Your task to perform on an android device: Go to Wikipedia Image 0: 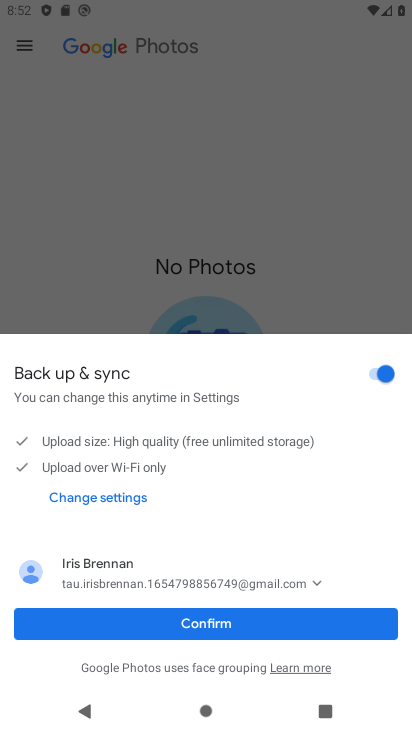
Step 0: press home button
Your task to perform on an android device: Go to Wikipedia Image 1: 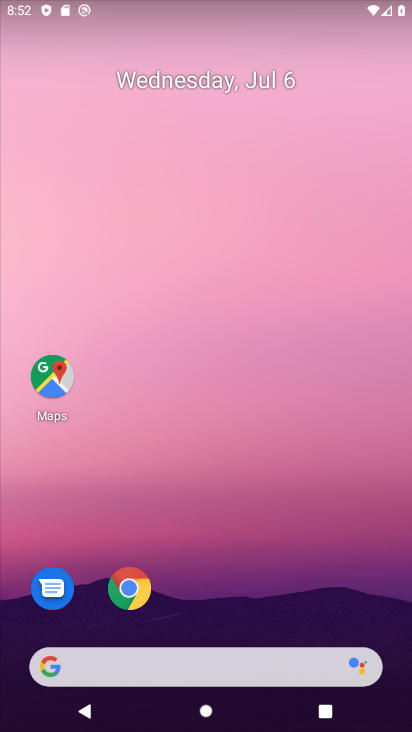
Step 1: click (124, 594)
Your task to perform on an android device: Go to Wikipedia Image 2: 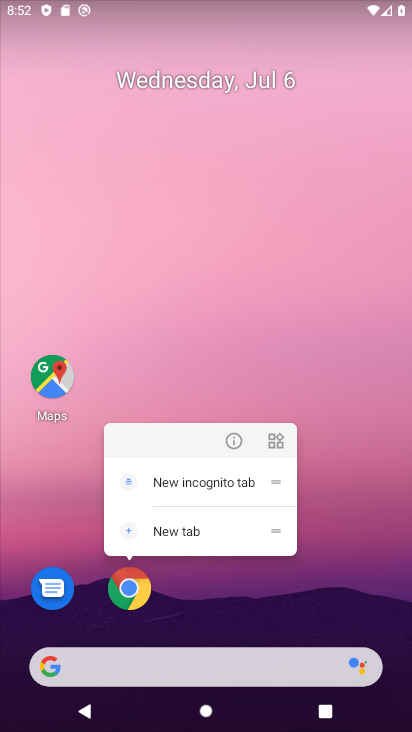
Step 2: click (137, 594)
Your task to perform on an android device: Go to Wikipedia Image 3: 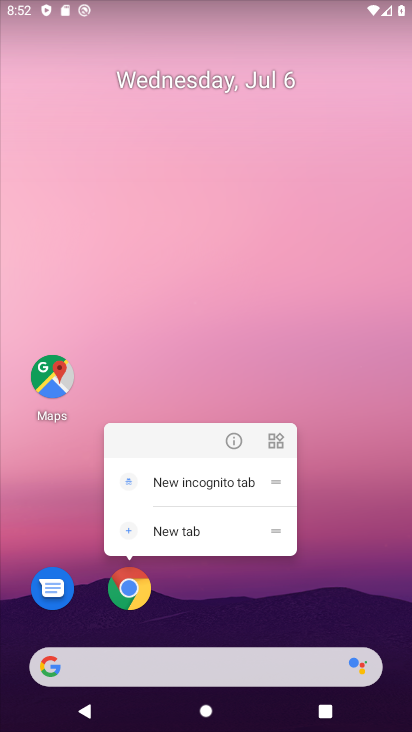
Step 3: click (126, 587)
Your task to perform on an android device: Go to Wikipedia Image 4: 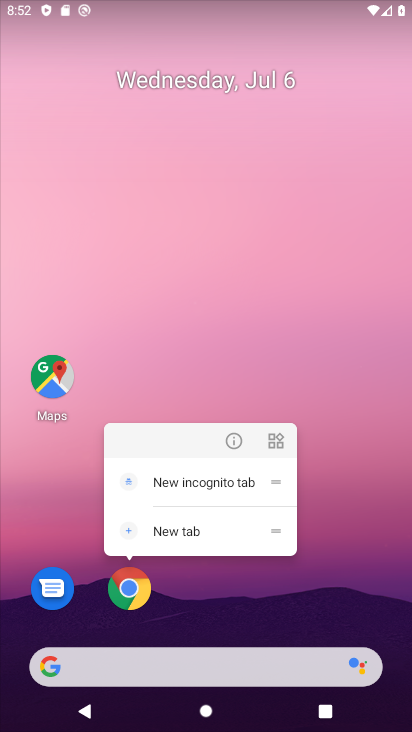
Step 4: click (125, 584)
Your task to perform on an android device: Go to Wikipedia Image 5: 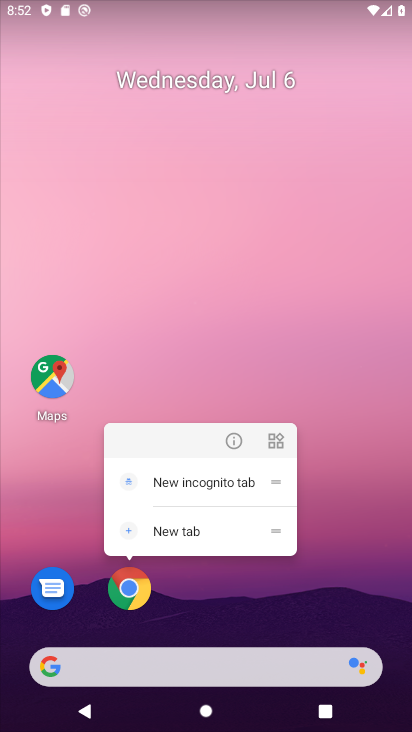
Step 5: click (125, 590)
Your task to perform on an android device: Go to Wikipedia Image 6: 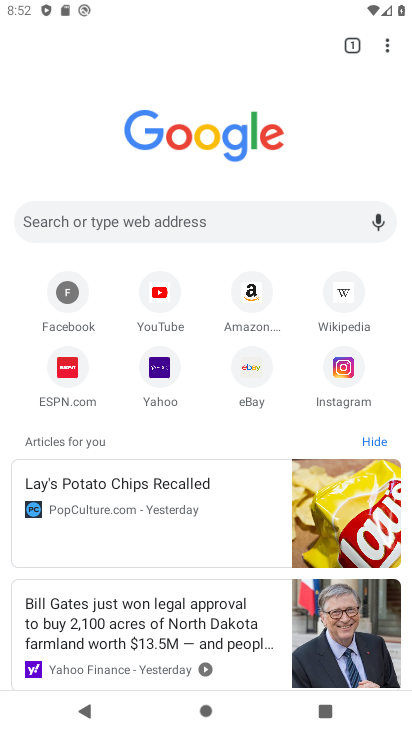
Step 6: click (342, 292)
Your task to perform on an android device: Go to Wikipedia Image 7: 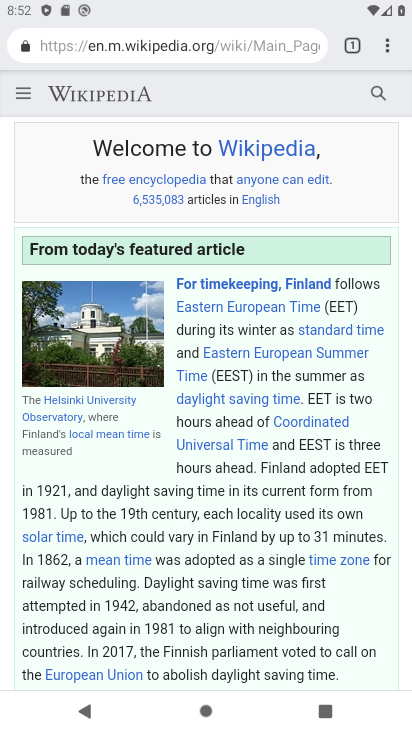
Step 7: task complete